Your task to perform on an android device: Go to Yahoo.com Image 0: 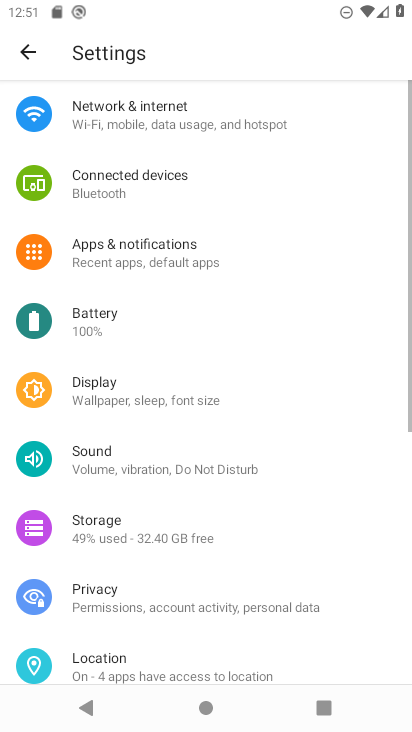
Step 0: press home button
Your task to perform on an android device: Go to Yahoo.com Image 1: 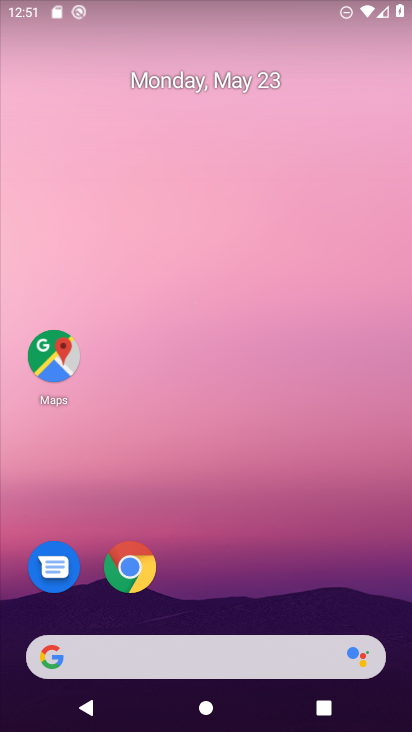
Step 1: click (136, 577)
Your task to perform on an android device: Go to Yahoo.com Image 2: 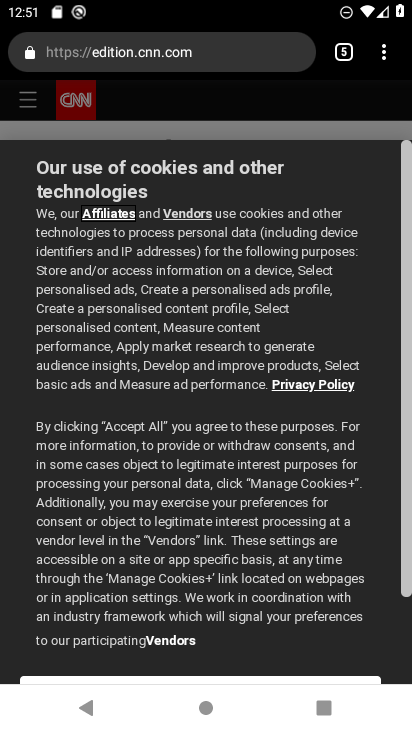
Step 2: click (336, 43)
Your task to perform on an android device: Go to Yahoo.com Image 3: 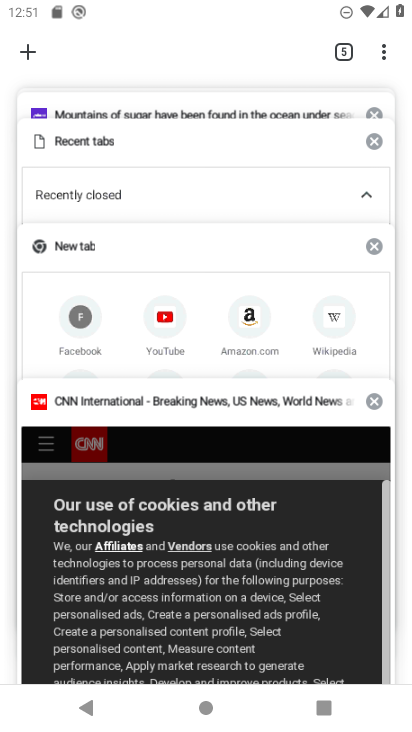
Step 3: click (128, 111)
Your task to perform on an android device: Go to Yahoo.com Image 4: 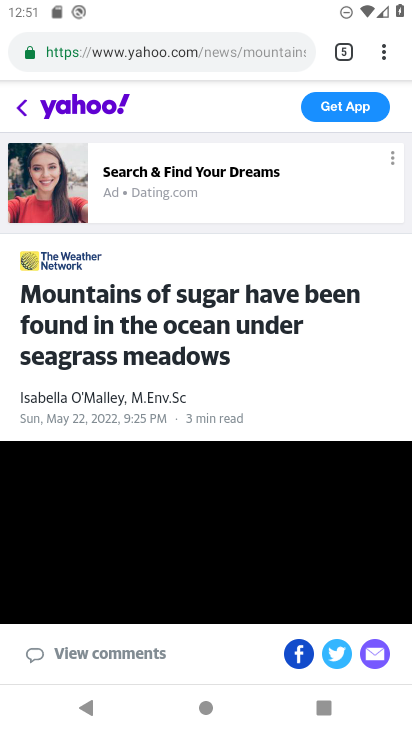
Step 4: task complete